Your task to perform on an android device: Open notification settings Image 0: 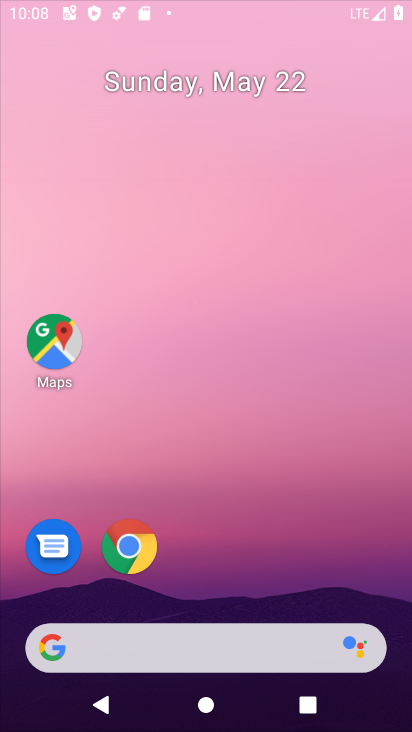
Step 0: click (356, 53)
Your task to perform on an android device: Open notification settings Image 1: 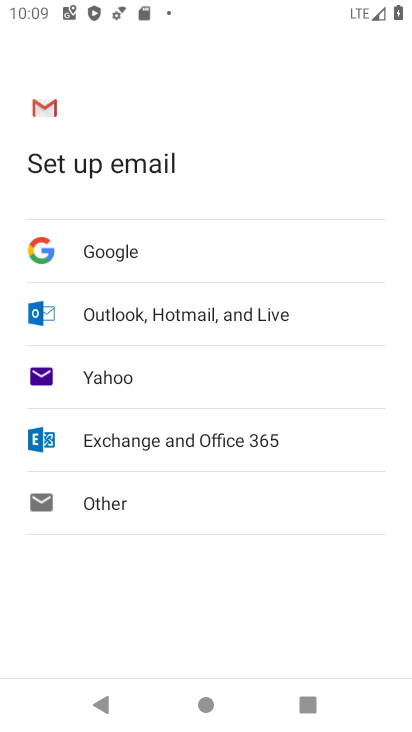
Step 1: press home button
Your task to perform on an android device: Open notification settings Image 2: 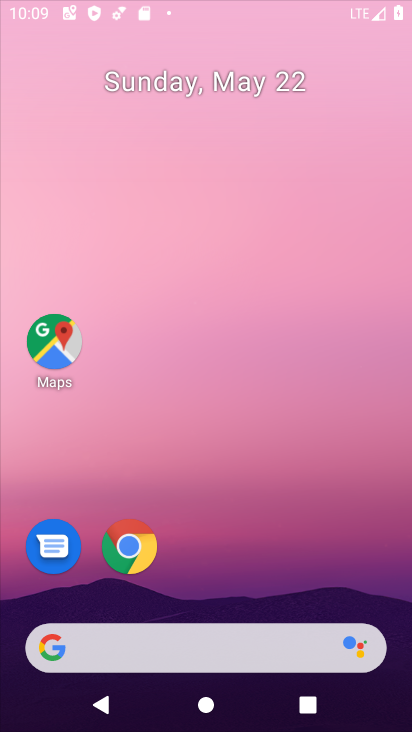
Step 2: drag from (163, 630) to (243, 154)
Your task to perform on an android device: Open notification settings Image 3: 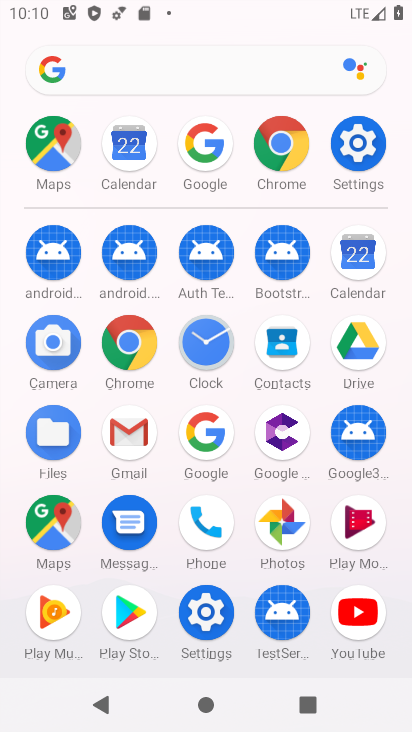
Step 3: click (185, 611)
Your task to perform on an android device: Open notification settings Image 4: 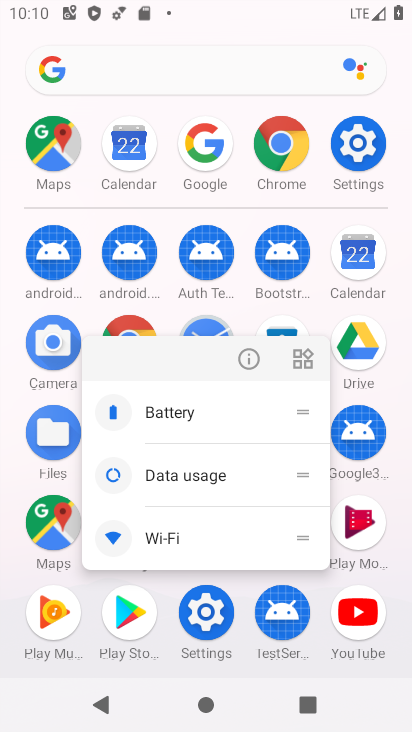
Step 4: click (265, 359)
Your task to perform on an android device: Open notification settings Image 5: 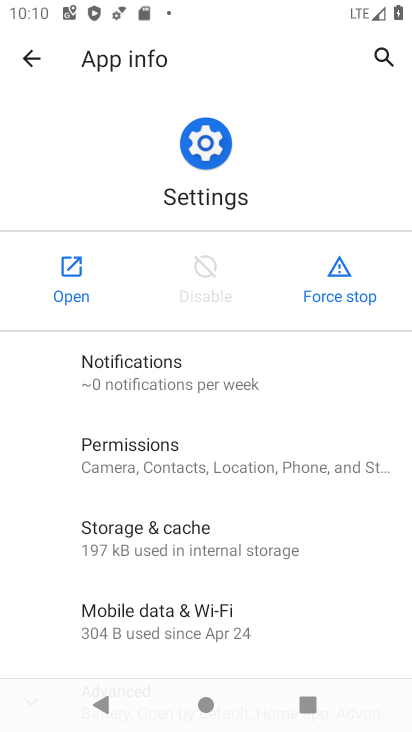
Step 5: click (78, 302)
Your task to perform on an android device: Open notification settings Image 6: 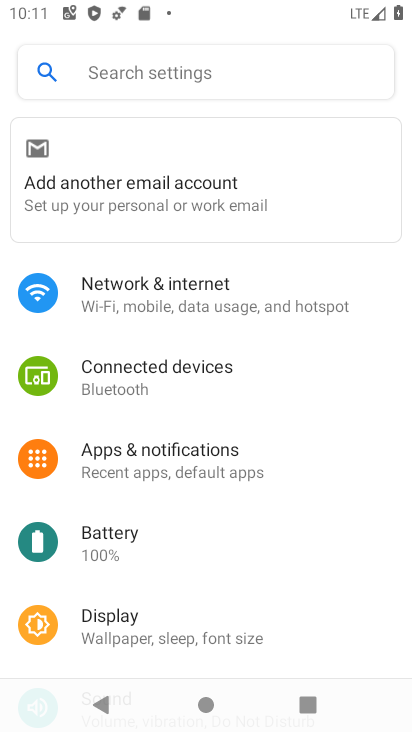
Step 6: click (145, 443)
Your task to perform on an android device: Open notification settings Image 7: 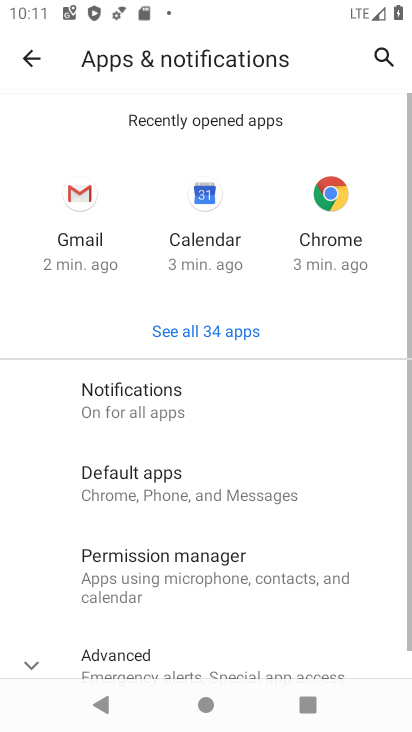
Step 7: click (150, 415)
Your task to perform on an android device: Open notification settings Image 8: 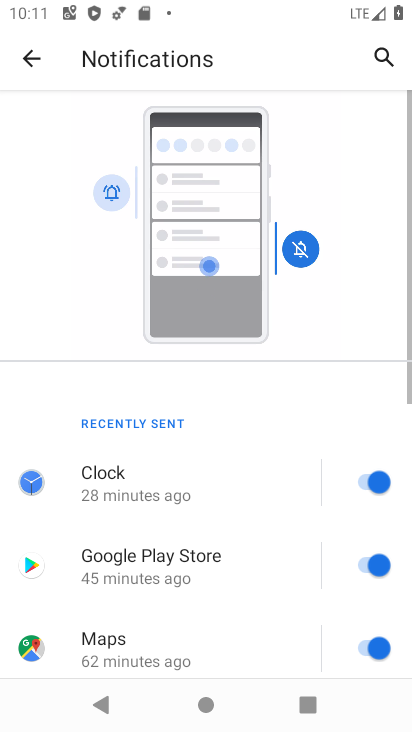
Step 8: task complete